Your task to perform on an android device: Open Chrome and go to the settings page Image 0: 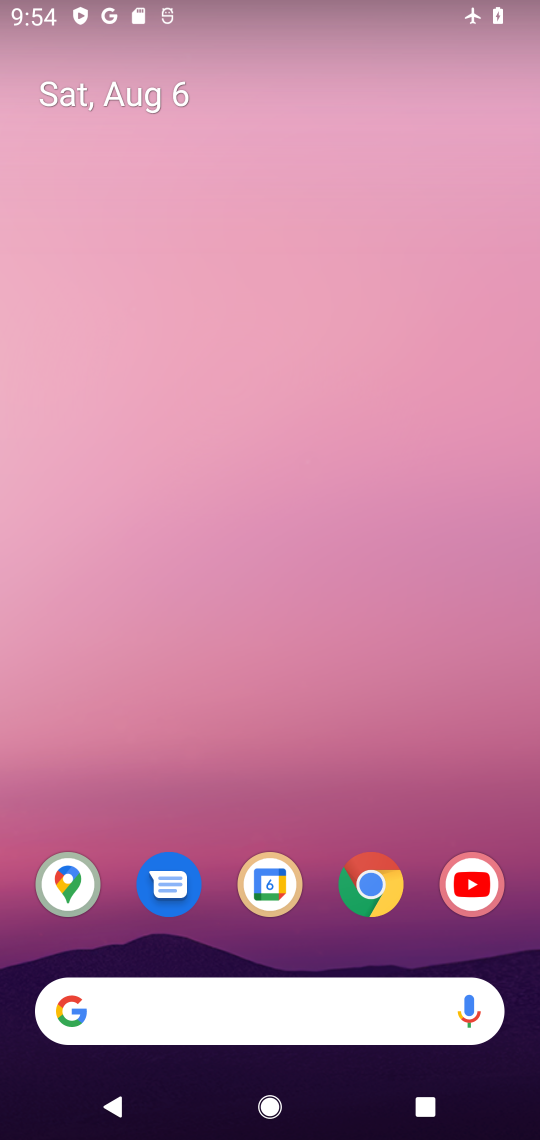
Step 0: click (372, 879)
Your task to perform on an android device: Open Chrome and go to the settings page Image 1: 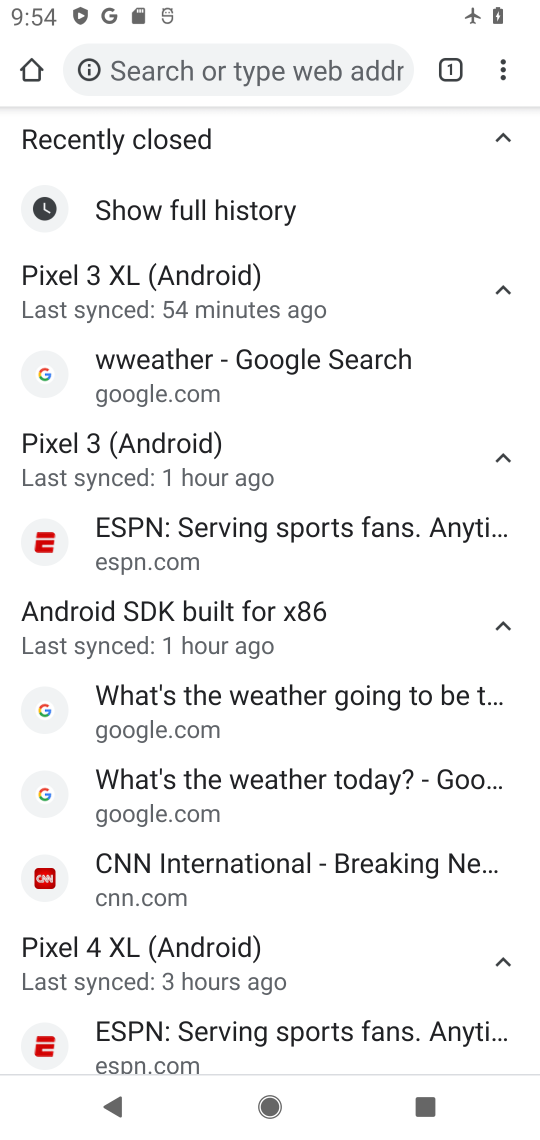
Step 1: click (500, 80)
Your task to perform on an android device: Open Chrome and go to the settings page Image 2: 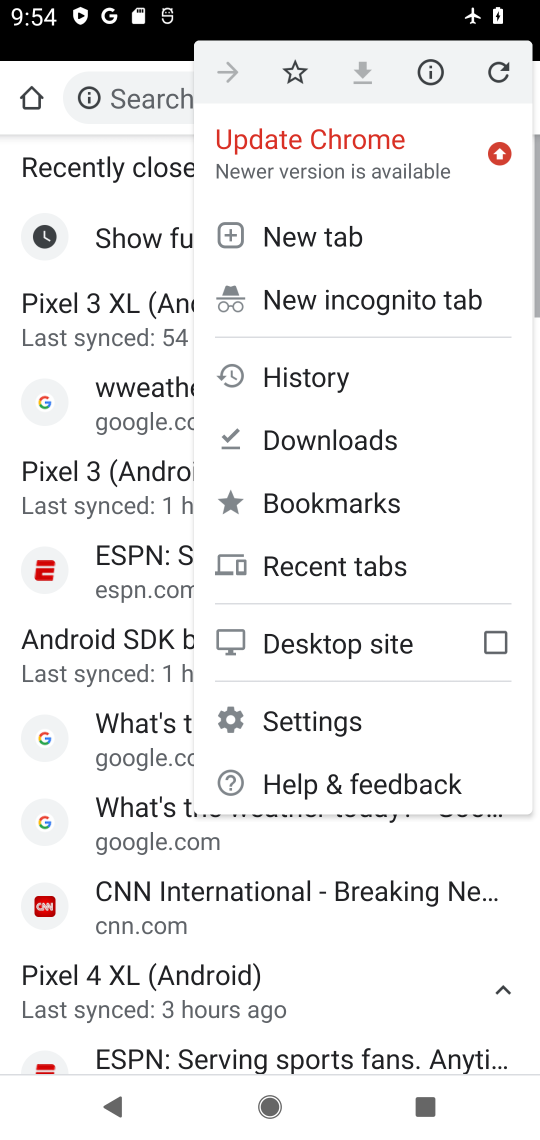
Step 2: click (304, 720)
Your task to perform on an android device: Open Chrome and go to the settings page Image 3: 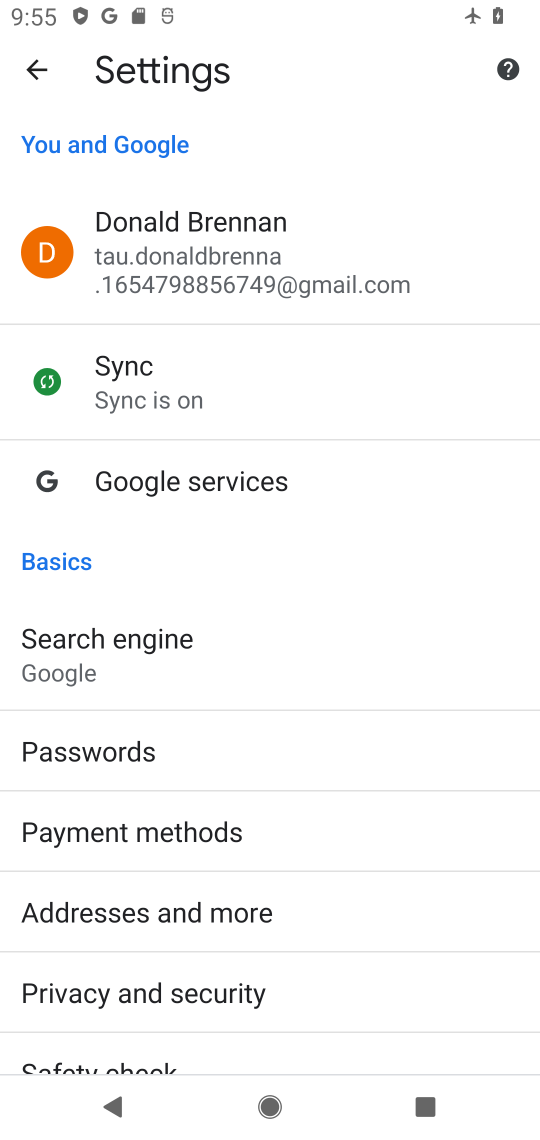
Step 3: task complete